Your task to perform on an android device: turn on translation in the chrome app Image 0: 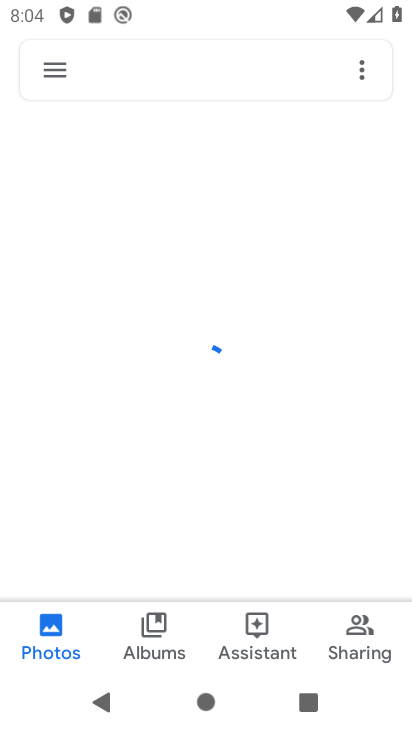
Step 0: press back button
Your task to perform on an android device: turn on translation in the chrome app Image 1: 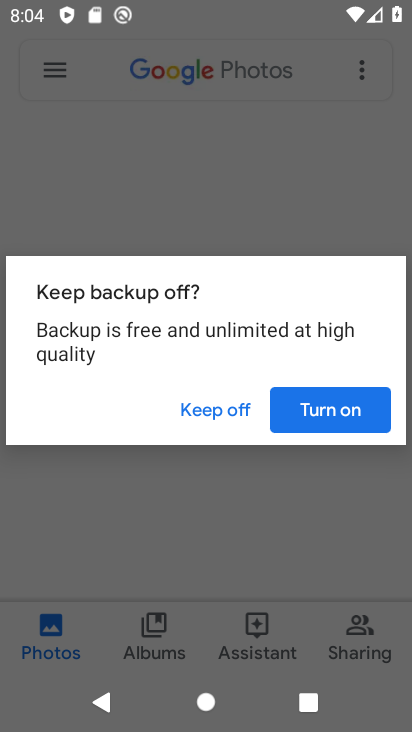
Step 1: press back button
Your task to perform on an android device: turn on translation in the chrome app Image 2: 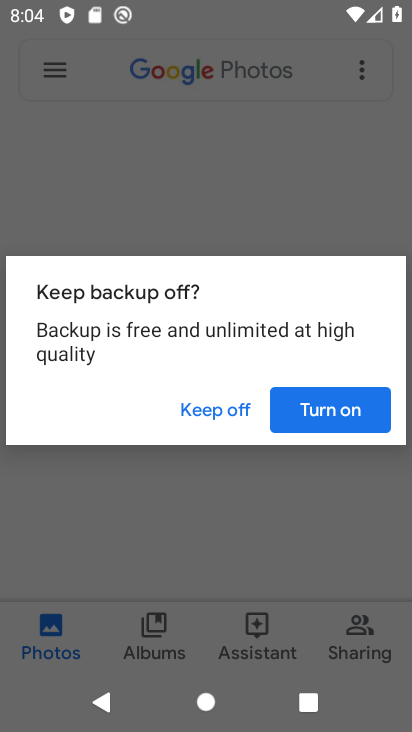
Step 2: press home button
Your task to perform on an android device: turn on translation in the chrome app Image 3: 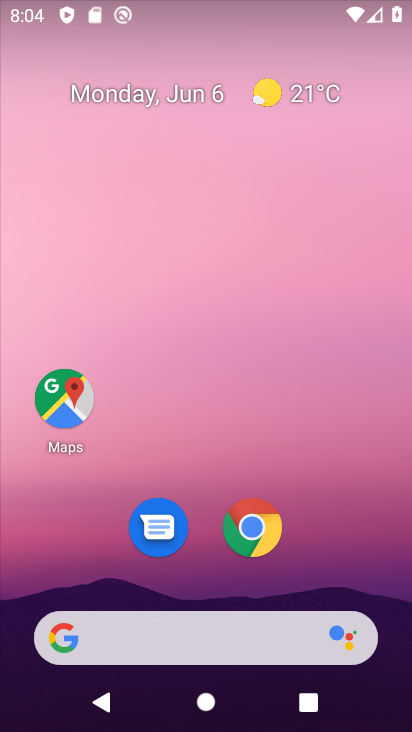
Step 3: click (260, 520)
Your task to perform on an android device: turn on translation in the chrome app Image 4: 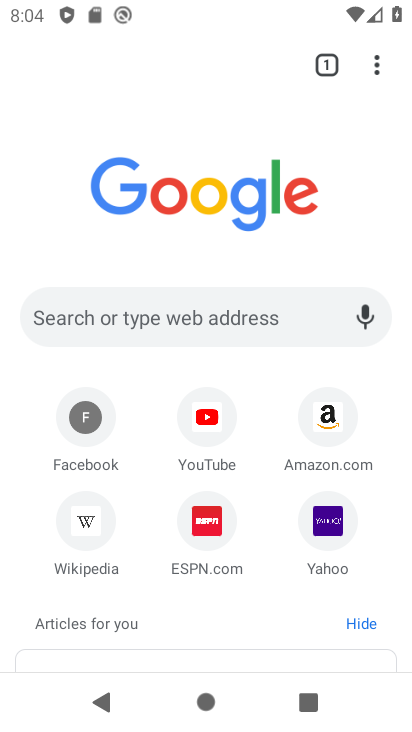
Step 4: drag from (378, 55) to (196, 530)
Your task to perform on an android device: turn on translation in the chrome app Image 5: 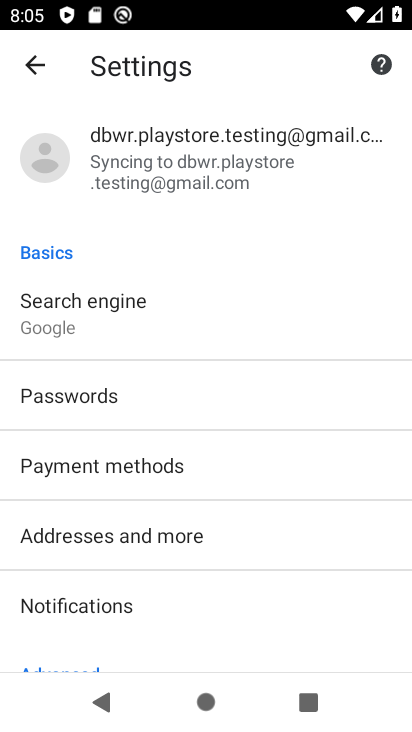
Step 5: drag from (179, 625) to (198, 292)
Your task to perform on an android device: turn on translation in the chrome app Image 6: 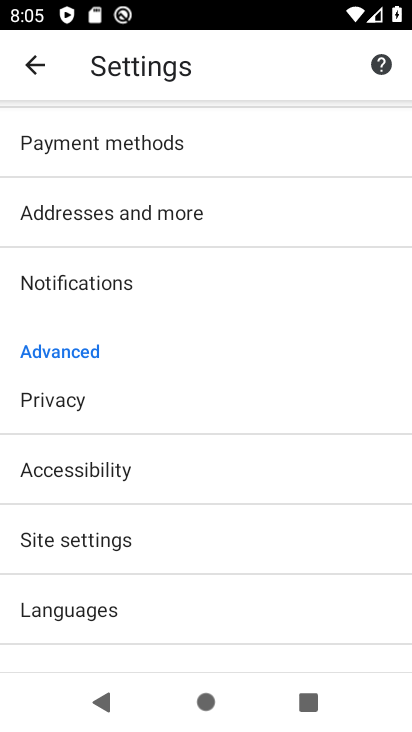
Step 6: click (127, 620)
Your task to perform on an android device: turn on translation in the chrome app Image 7: 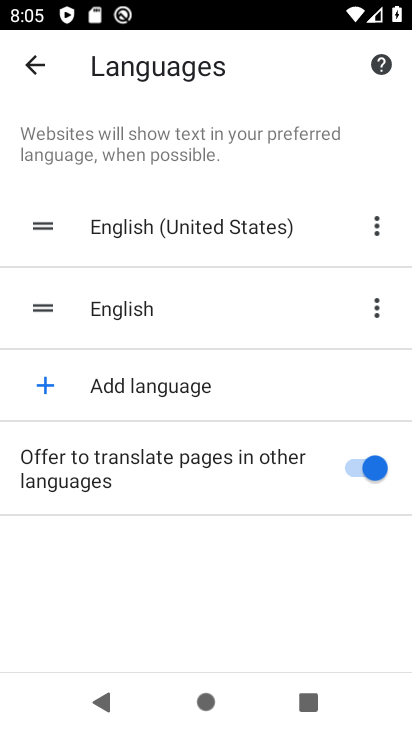
Step 7: task complete